Your task to perform on an android device: Clear the cart on ebay.com. Add bose quietcomfort 35 to the cart on ebay.com, then select checkout. Image 0: 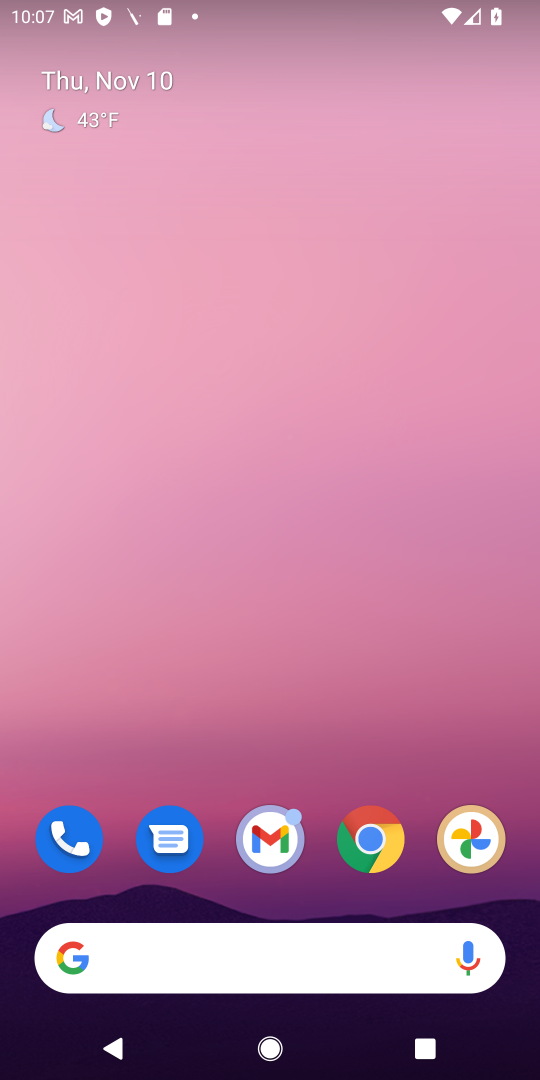
Step 0: click (368, 838)
Your task to perform on an android device: Clear the cart on ebay.com. Add bose quietcomfort 35 to the cart on ebay.com, then select checkout. Image 1: 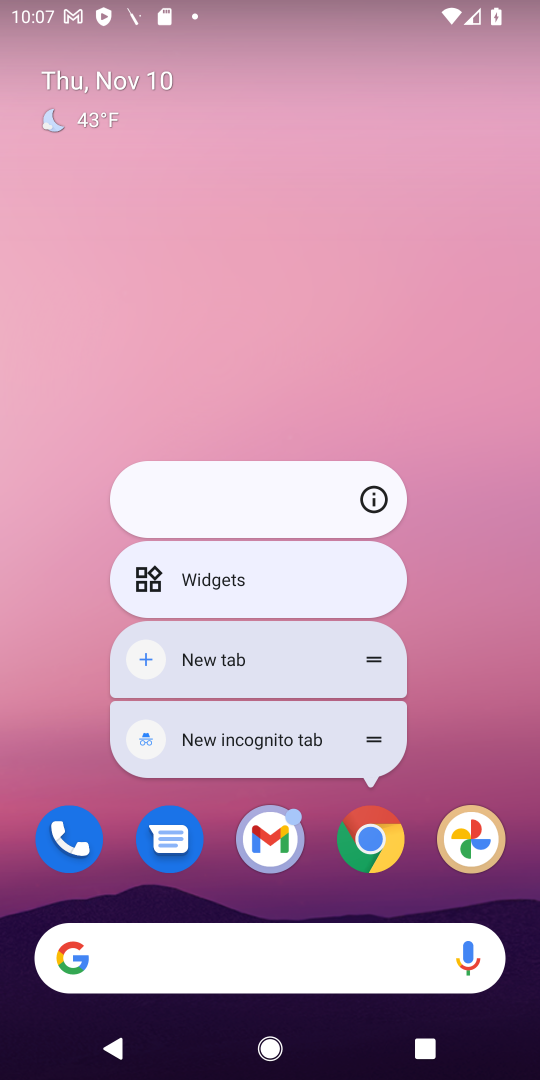
Step 1: click (378, 841)
Your task to perform on an android device: Clear the cart on ebay.com. Add bose quietcomfort 35 to the cart on ebay.com, then select checkout. Image 2: 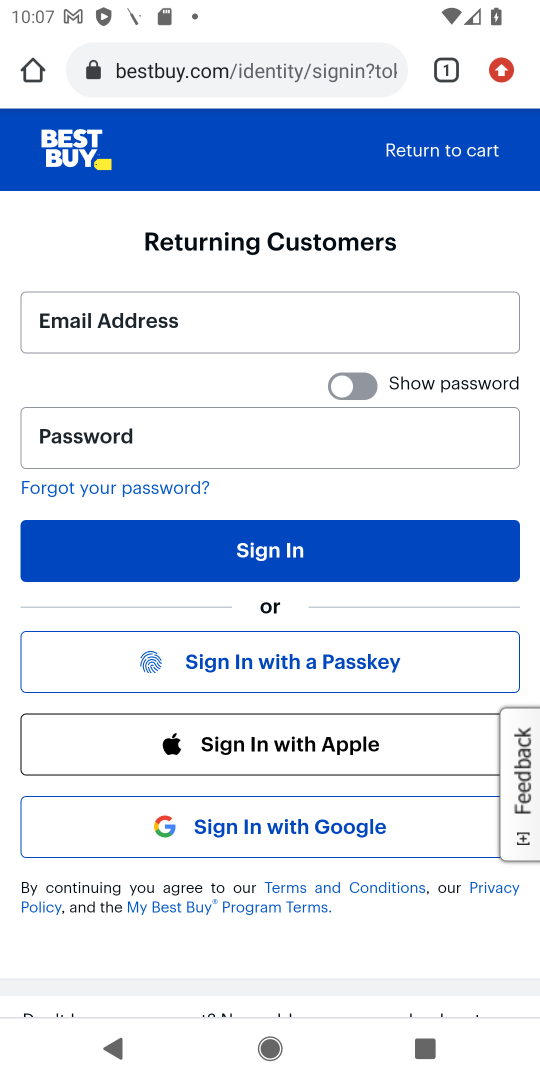
Step 2: click (328, 72)
Your task to perform on an android device: Clear the cart on ebay.com. Add bose quietcomfort 35 to the cart on ebay.com, then select checkout. Image 3: 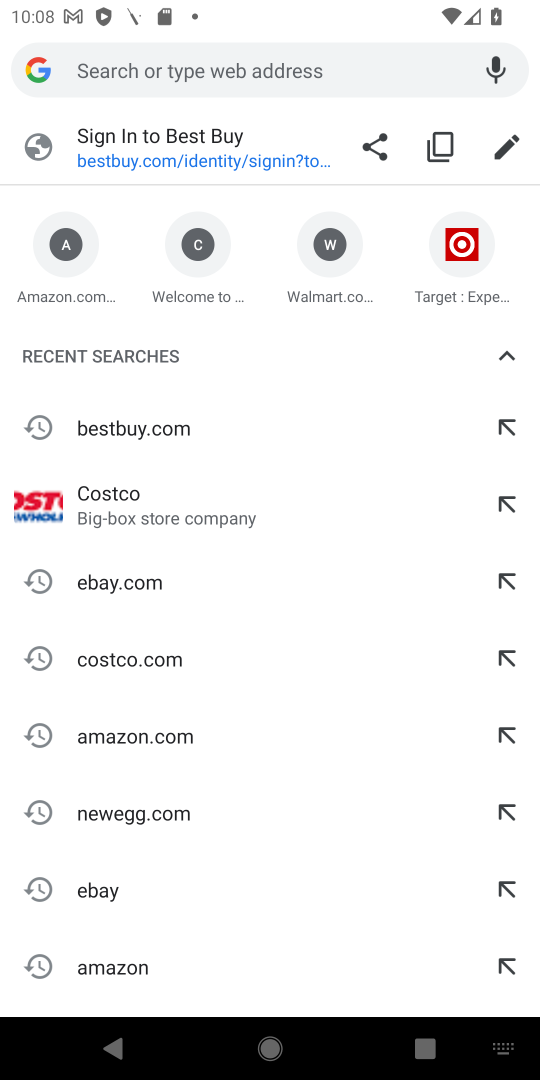
Step 3: click (134, 573)
Your task to perform on an android device: Clear the cart on ebay.com. Add bose quietcomfort 35 to the cart on ebay.com, then select checkout. Image 4: 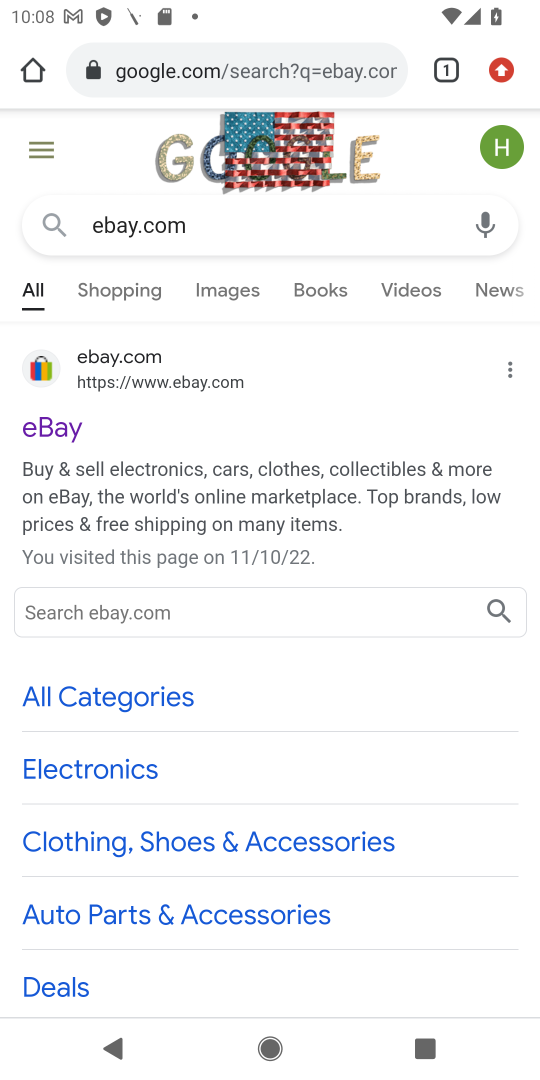
Step 4: click (161, 388)
Your task to perform on an android device: Clear the cart on ebay.com. Add bose quietcomfort 35 to the cart on ebay.com, then select checkout. Image 5: 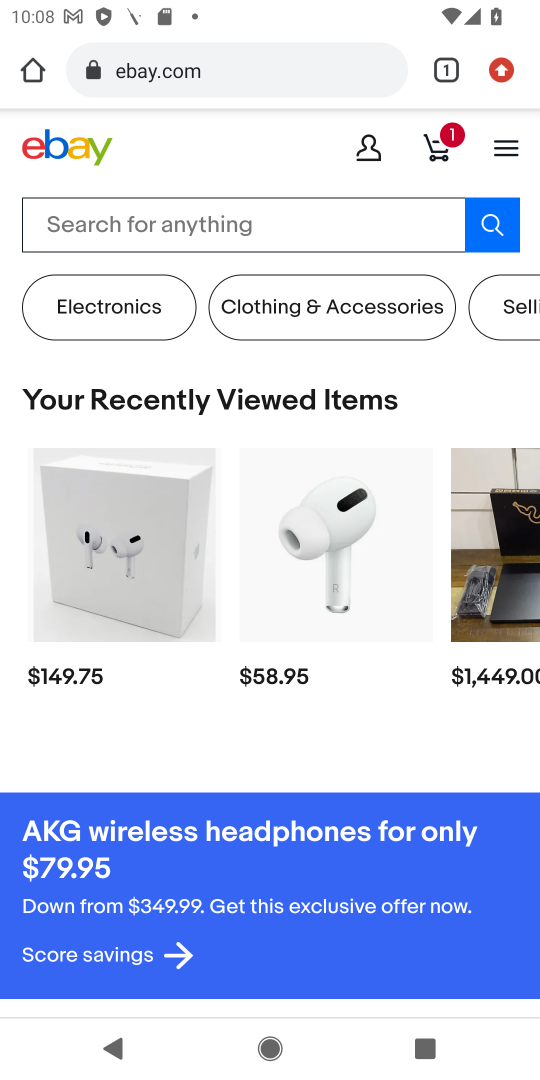
Step 5: click (434, 140)
Your task to perform on an android device: Clear the cart on ebay.com. Add bose quietcomfort 35 to the cart on ebay.com, then select checkout. Image 6: 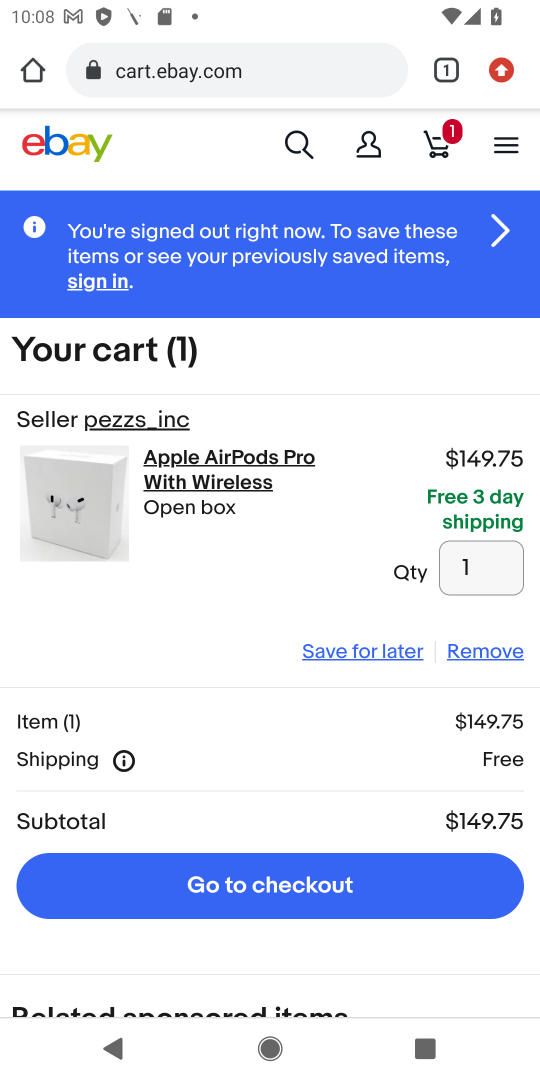
Step 6: click (471, 650)
Your task to perform on an android device: Clear the cart on ebay.com. Add bose quietcomfort 35 to the cart on ebay.com, then select checkout. Image 7: 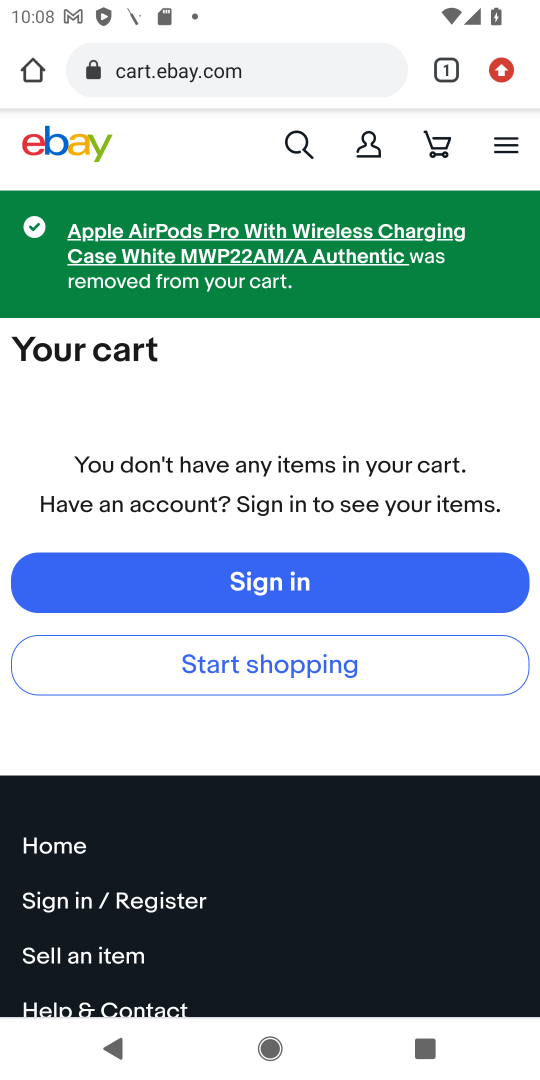
Step 7: click (293, 141)
Your task to perform on an android device: Clear the cart on ebay.com. Add bose quietcomfort 35 to the cart on ebay.com, then select checkout. Image 8: 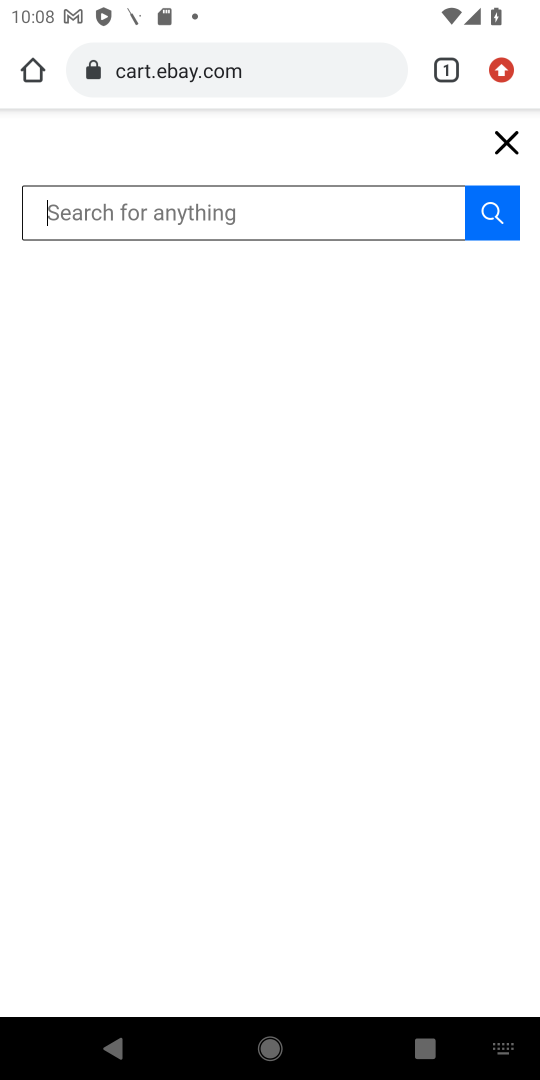
Step 8: type "bose quietcomfort 35"
Your task to perform on an android device: Clear the cart on ebay.com. Add bose quietcomfort 35 to the cart on ebay.com, then select checkout. Image 9: 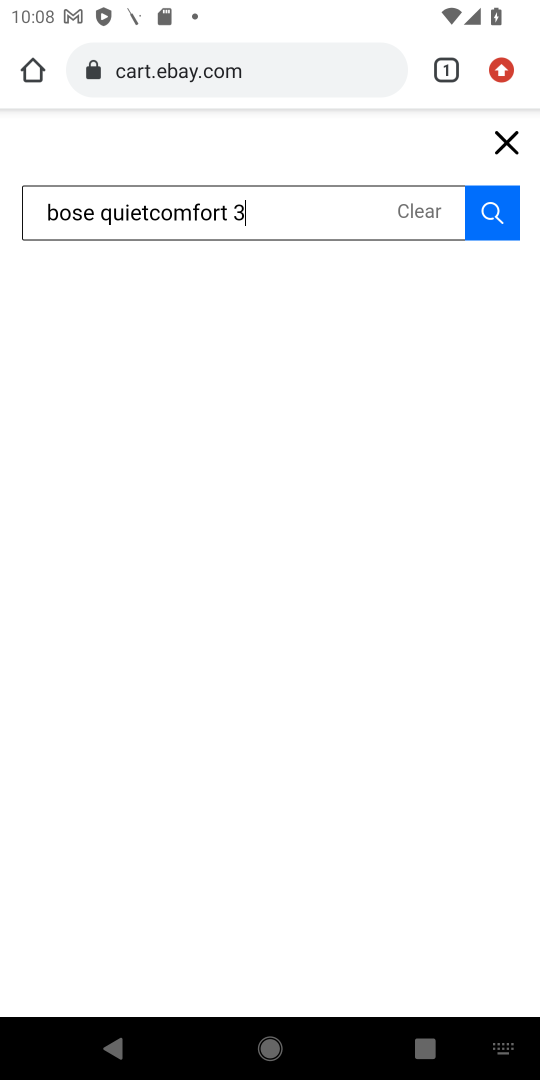
Step 9: press enter
Your task to perform on an android device: Clear the cart on ebay.com. Add bose quietcomfort 35 to the cart on ebay.com, then select checkout. Image 10: 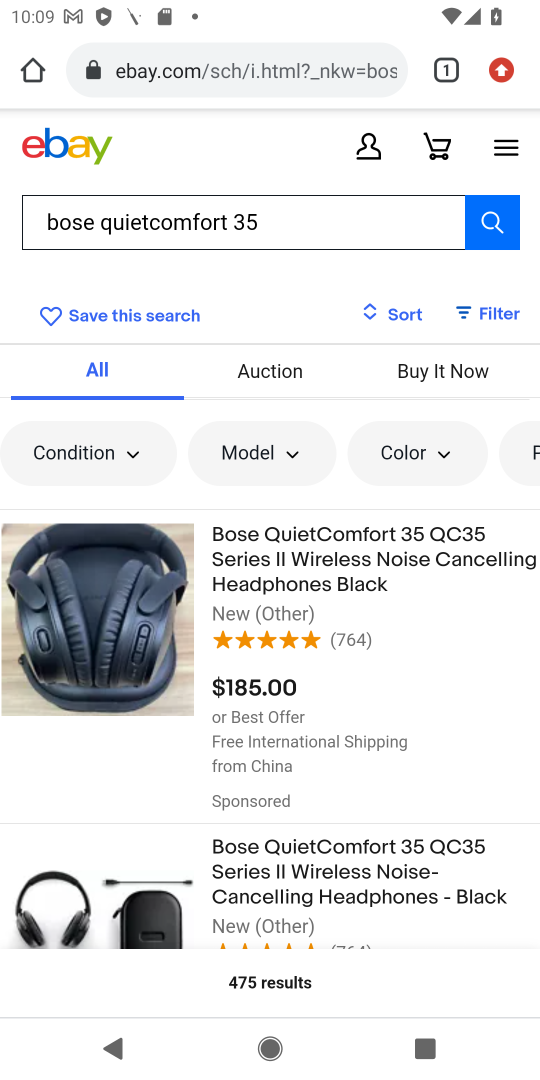
Step 10: click (113, 621)
Your task to perform on an android device: Clear the cart on ebay.com. Add bose quietcomfort 35 to the cart on ebay.com, then select checkout. Image 11: 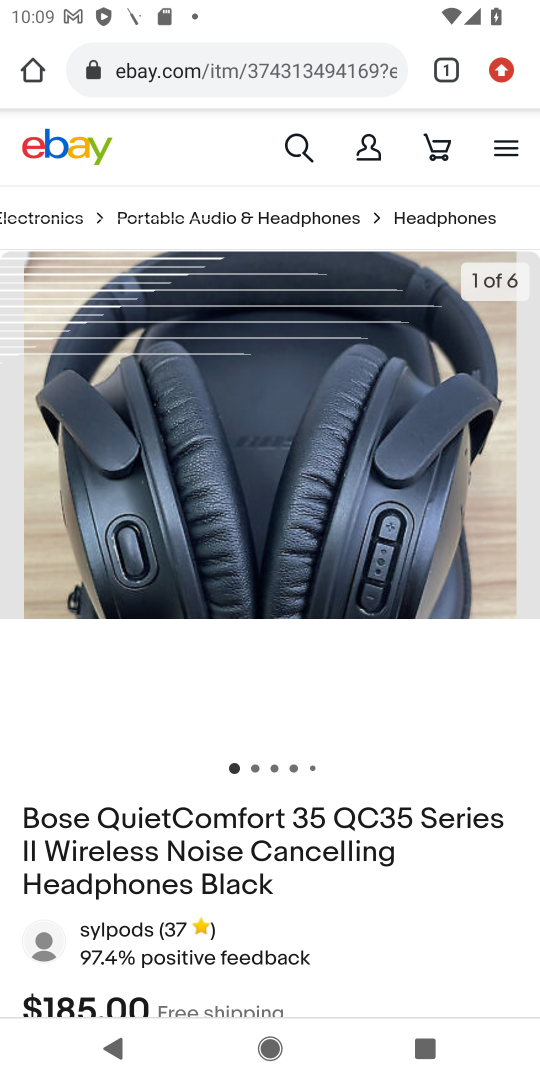
Step 11: drag from (462, 897) to (472, 362)
Your task to perform on an android device: Clear the cart on ebay.com. Add bose quietcomfort 35 to the cart on ebay.com, then select checkout. Image 12: 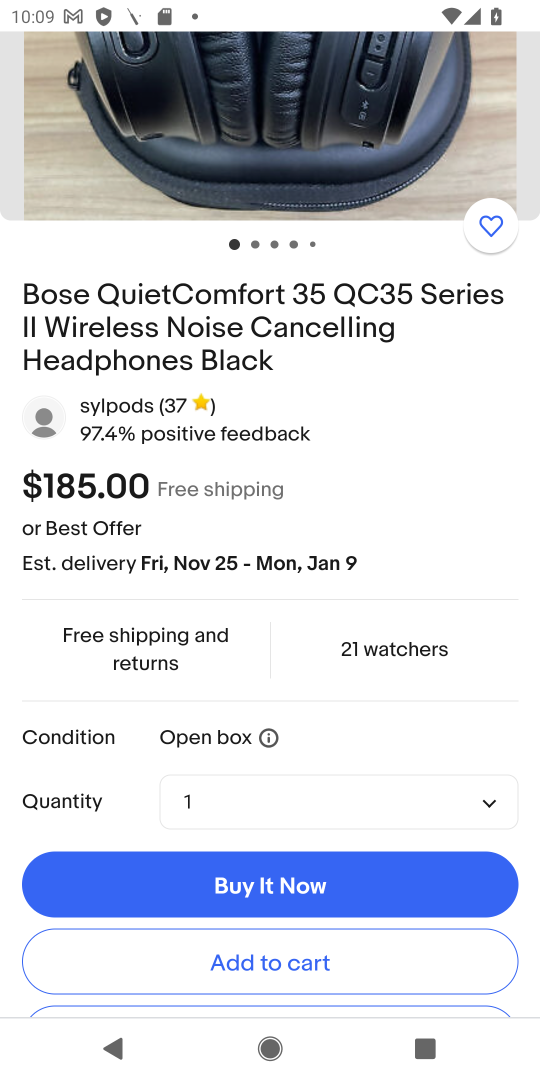
Step 12: click (351, 961)
Your task to perform on an android device: Clear the cart on ebay.com. Add bose quietcomfort 35 to the cart on ebay.com, then select checkout. Image 13: 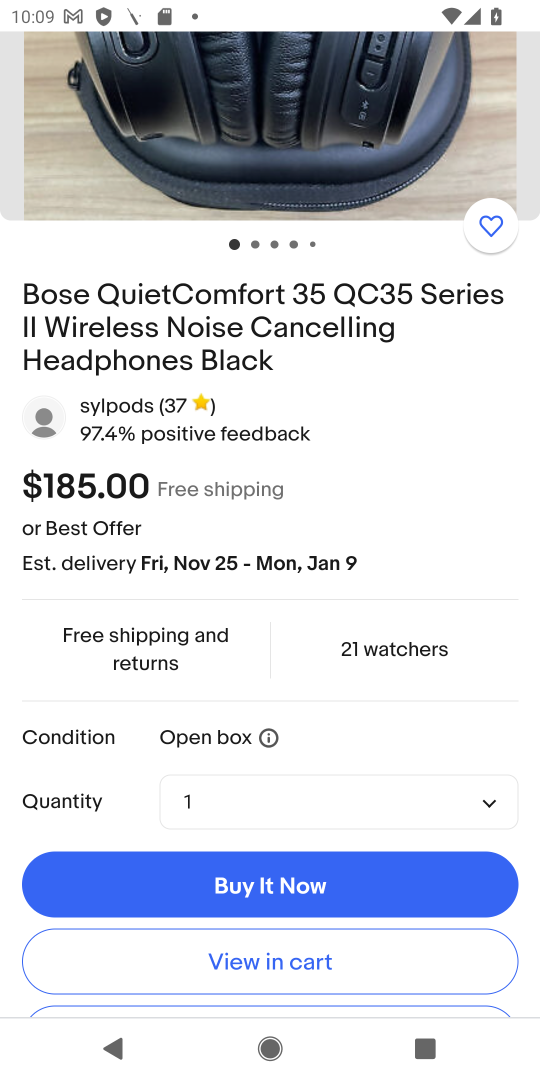
Step 13: click (287, 961)
Your task to perform on an android device: Clear the cart on ebay.com. Add bose quietcomfort 35 to the cart on ebay.com, then select checkout. Image 14: 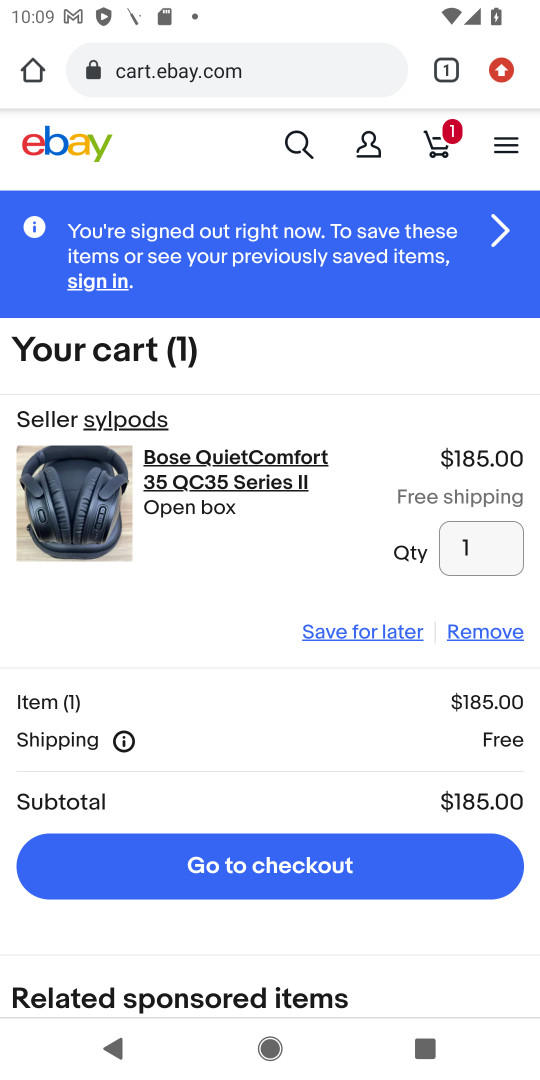
Step 14: click (318, 867)
Your task to perform on an android device: Clear the cart on ebay.com. Add bose quietcomfort 35 to the cart on ebay.com, then select checkout. Image 15: 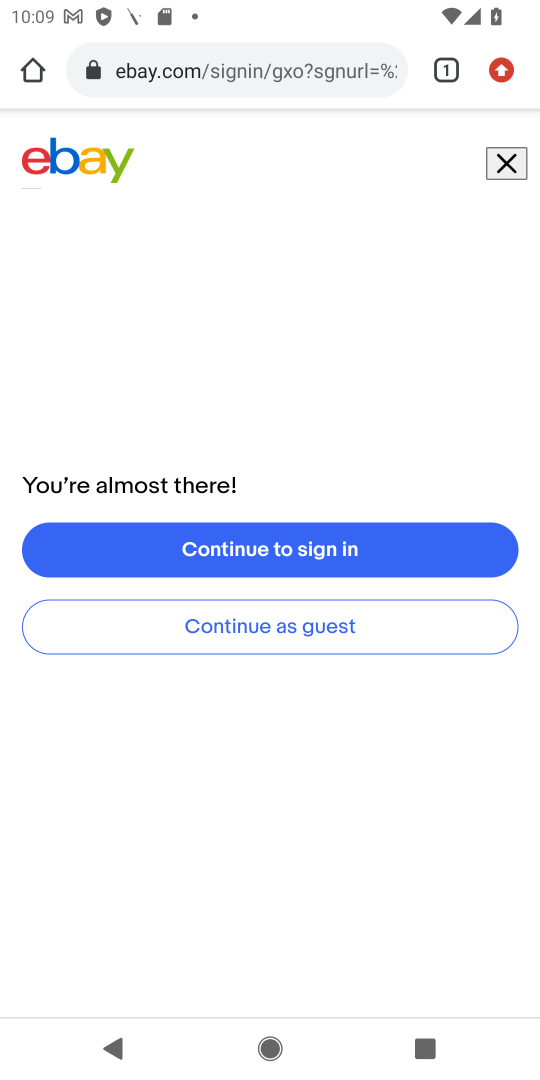
Step 15: task complete